Your task to perform on an android device: Open the phone app and click the voicemail tab. Image 0: 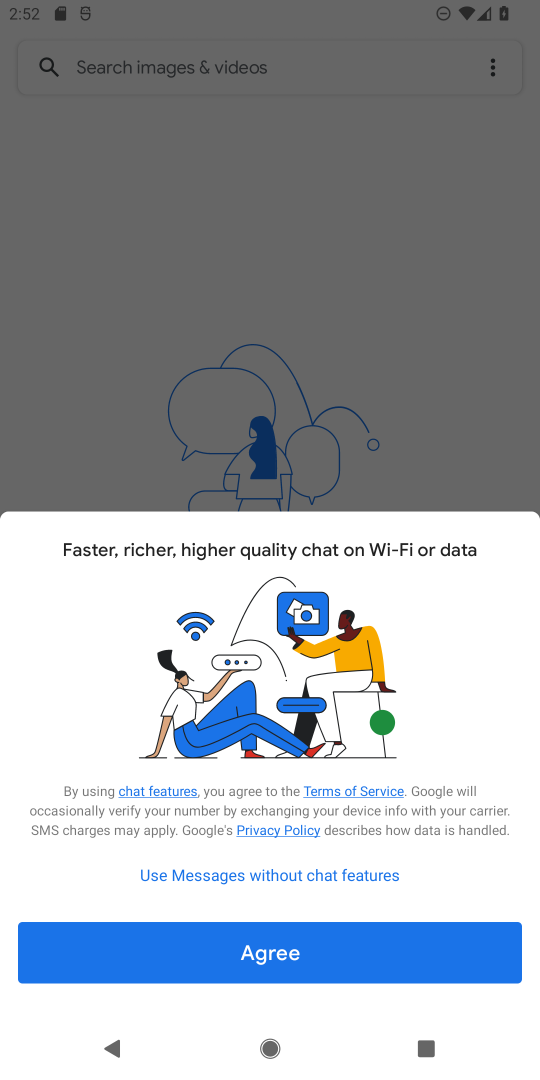
Step 0: press home button
Your task to perform on an android device: Open the phone app and click the voicemail tab. Image 1: 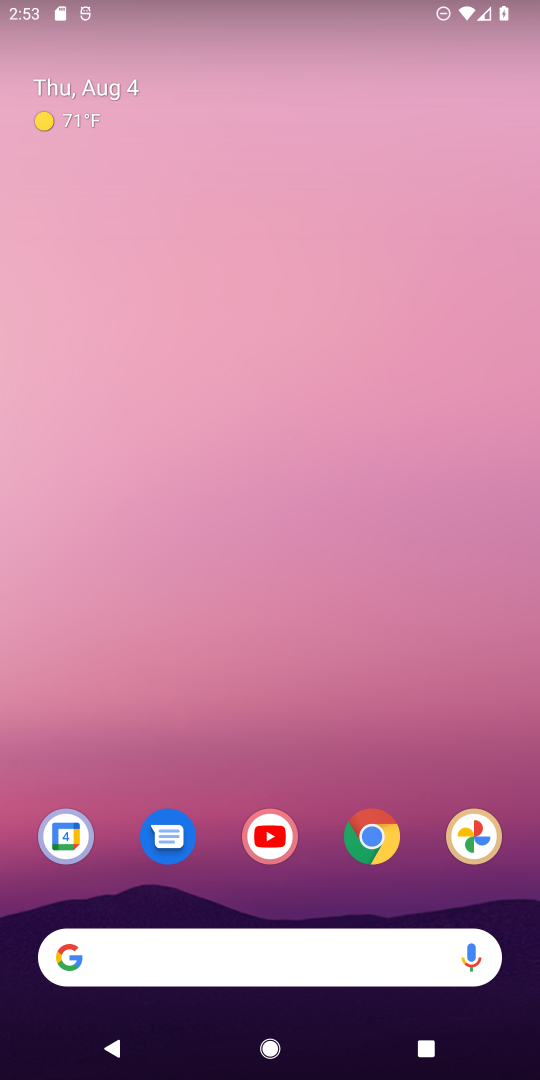
Step 1: drag from (213, 1014) to (242, 101)
Your task to perform on an android device: Open the phone app and click the voicemail tab. Image 2: 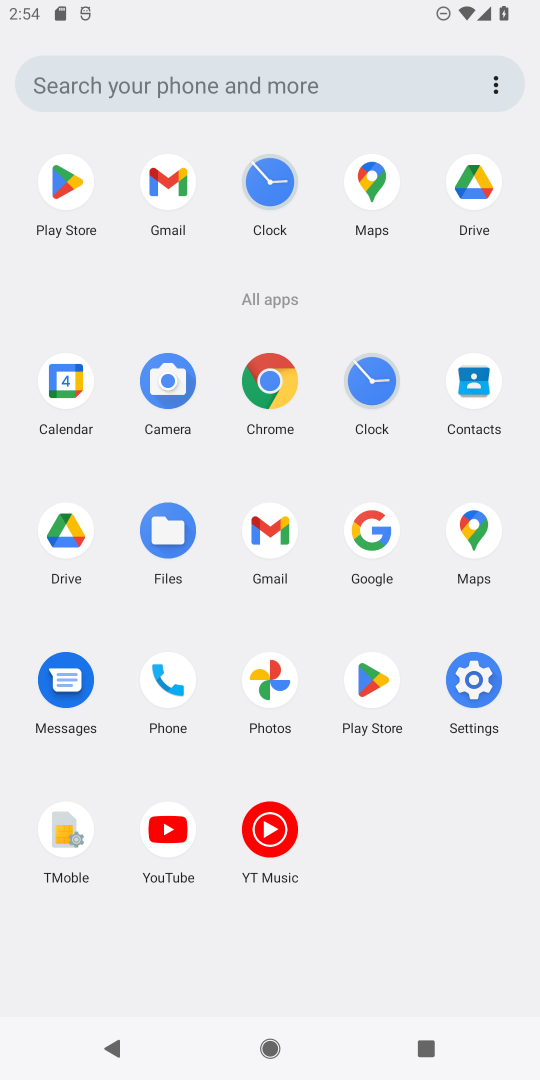
Step 2: click (170, 685)
Your task to perform on an android device: Open the phone app and click the voicemail tab. Image 3: 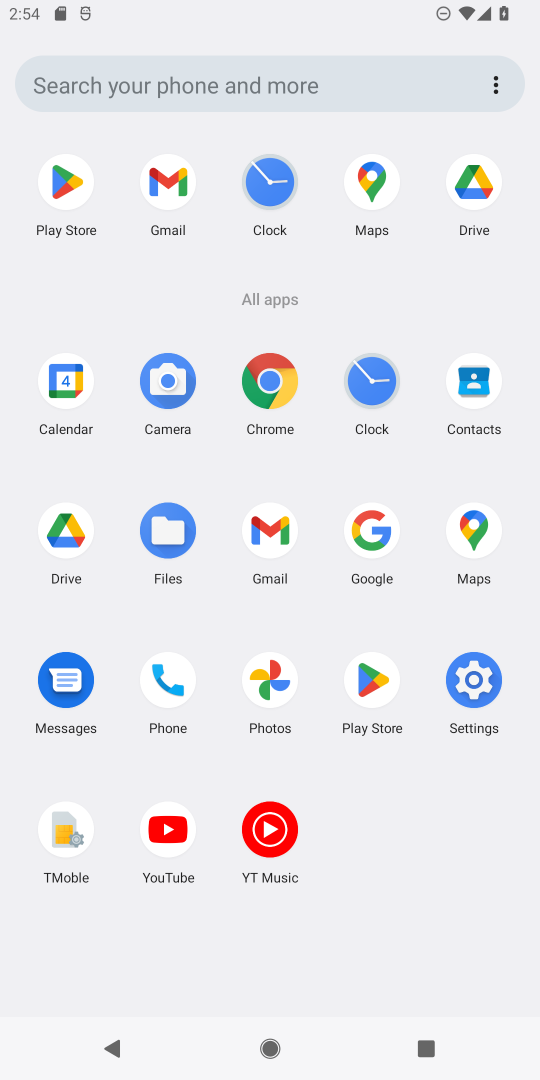
Step 3: click (170, 685)
Your task to perform on an android device: Open the phone app and click the voicemail tab. Image 4: 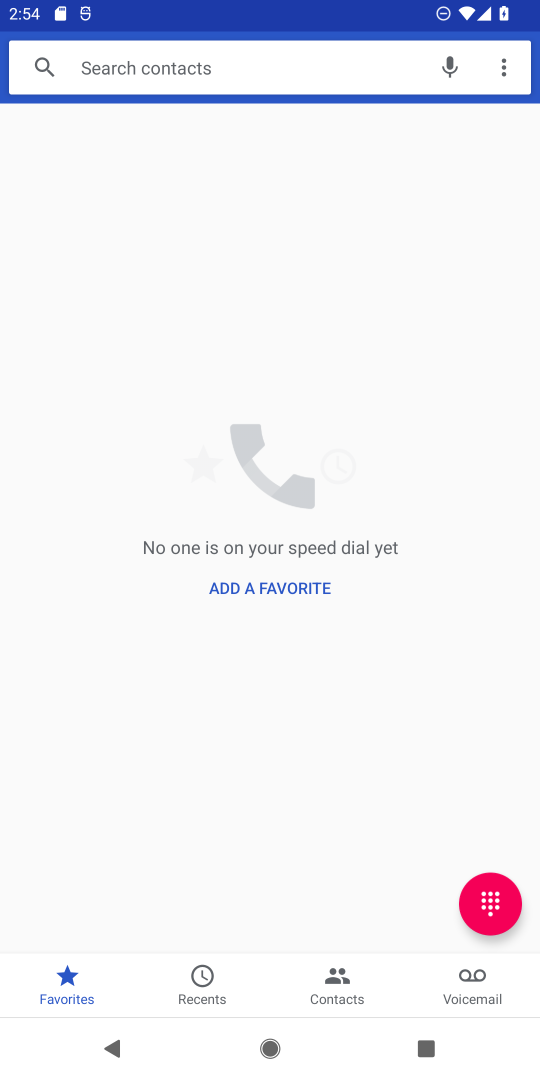
Step 4: click (472, 992)
Your task to perform on an android device: Open the phone app and click the voicemail tab. Image 5: 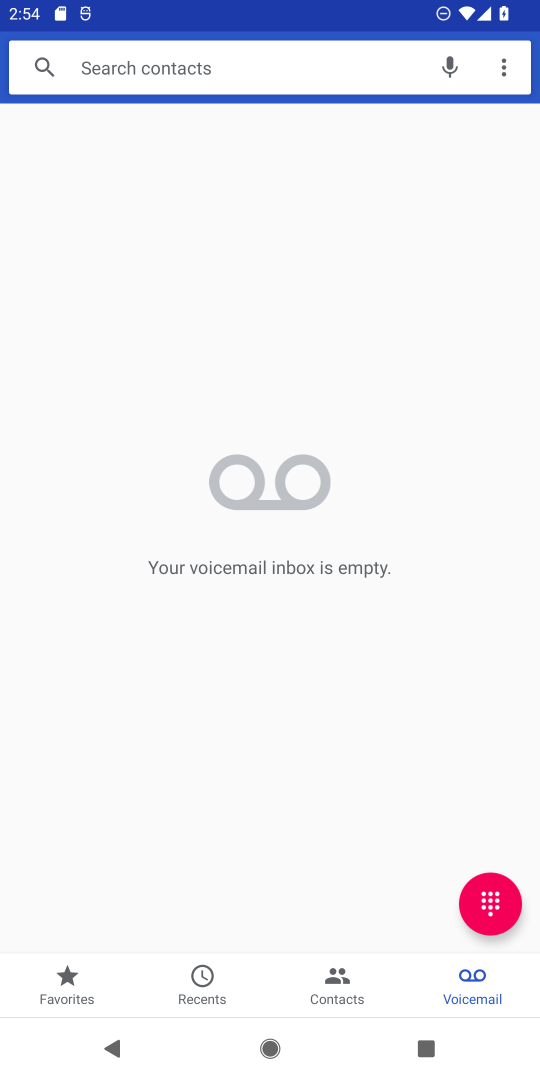
Step 5: task complete